Your task to perform on an android device: turn off translation in the chrome app Image 0: 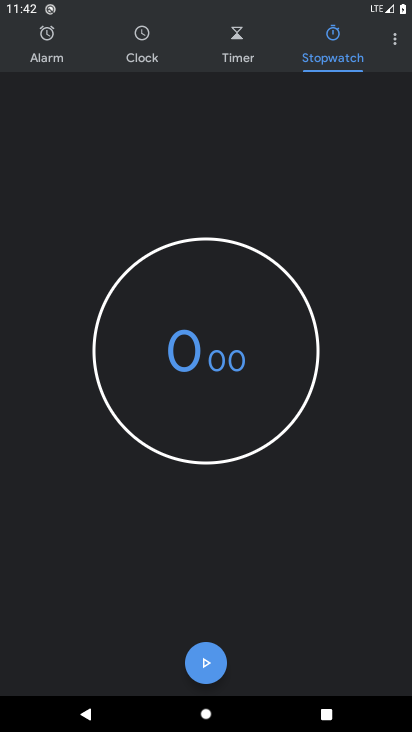
Step 0: press home button
Your task to perform on an android device: turn off translation in the chrome app Image 1: 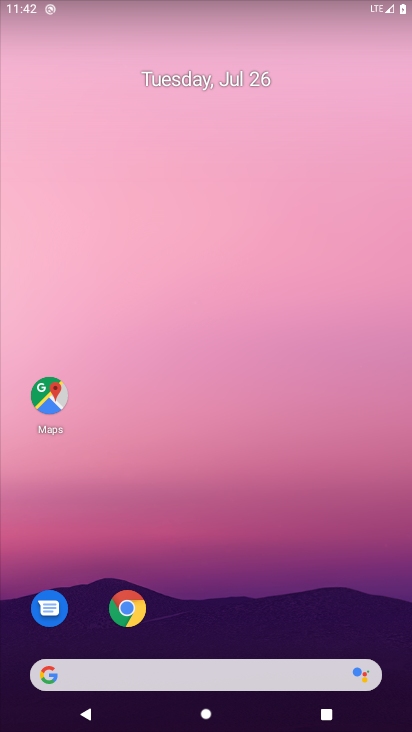
Step 1: click (137, 605)
Your task to perform on an android device: turn off translation in the chrome app Image 2: 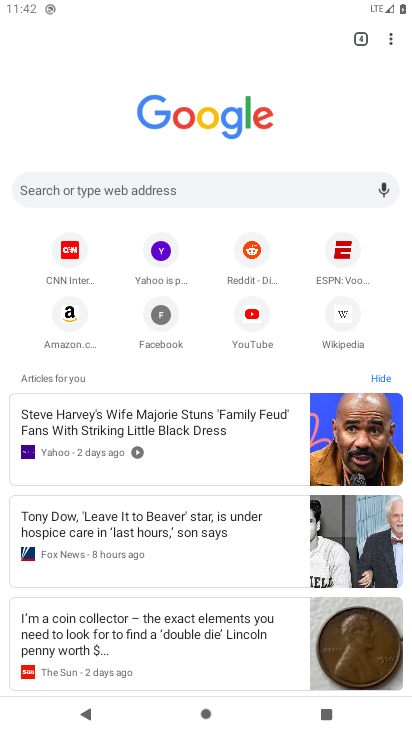
Step 2: drag from (396, 41) to (256, 336)
Your task to perform on an android device: turn off translation in the chrome app Image 3: 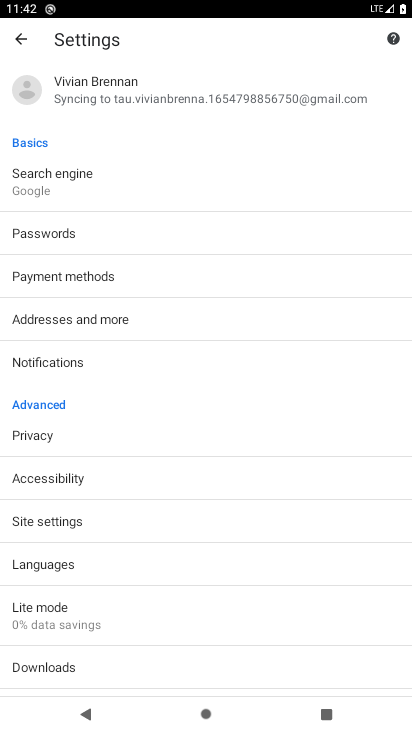
Step 3: click (57, 560)
Your task to perform on an android device: turn off translation in the chrome app Image 4: 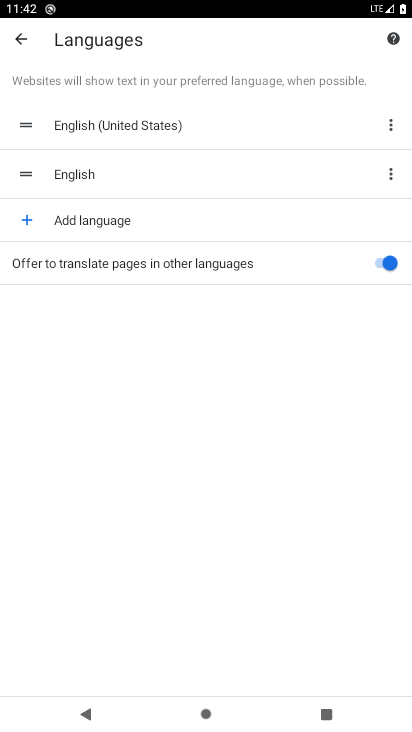
Step 4: click (387, 260)
Your task to perform on an android device: turn off translation in the chrome app Image 5: 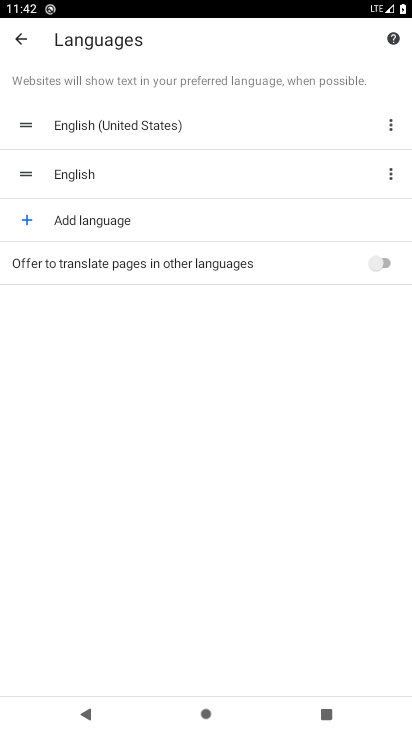
Step 5: task complete